Your task to perform on an android device: Open network settings Image 0: 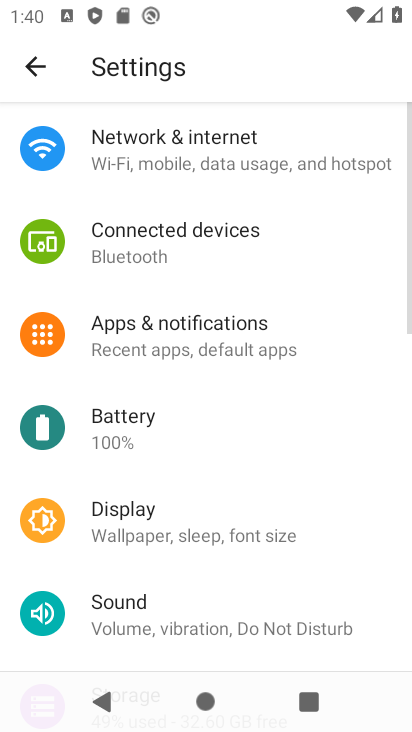
Step 0: click (291, 152)
Your task to perform on an android device: Open network settings Image 1: 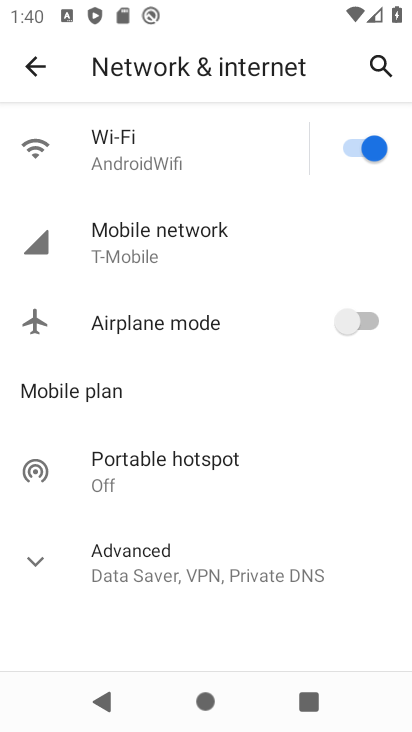
Step 1: task complete